Your task to perform on an android device: Turn off the flashlight Image 0: 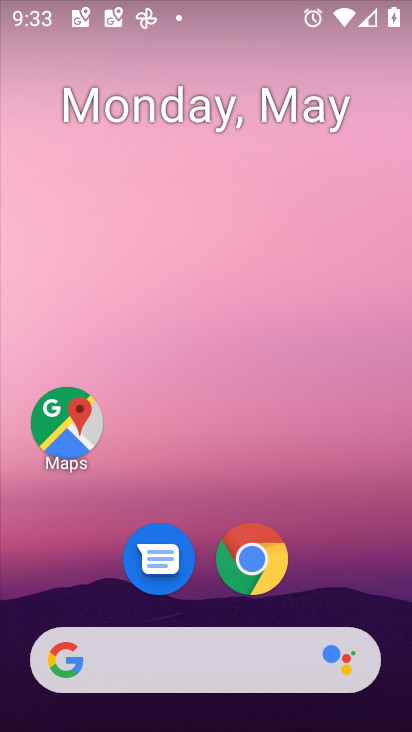
Step 0: drag from (381, 644) to (275, 51)
Your task to perform on an android device: Turn off the flashlight Image 1: 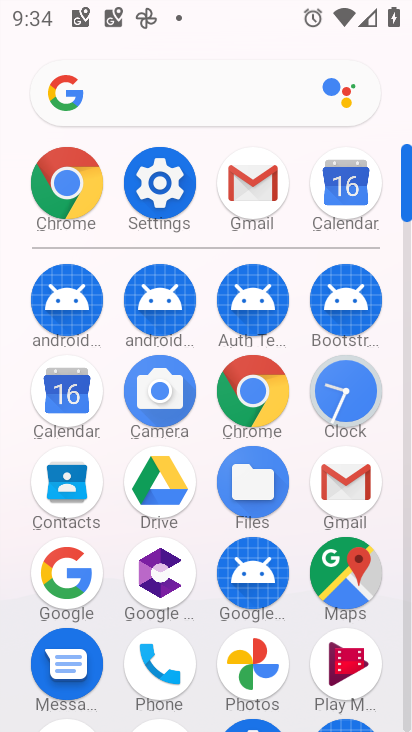
Step 1: click (163, 178)
Your task to perform on an android device: Turn off the flashlight Image 2: 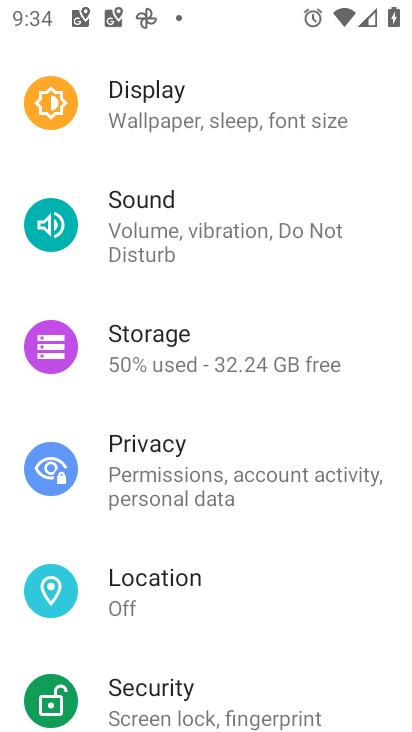
Step 2: task complete